Your task to perform on an android device: Go to network settings Image 0: 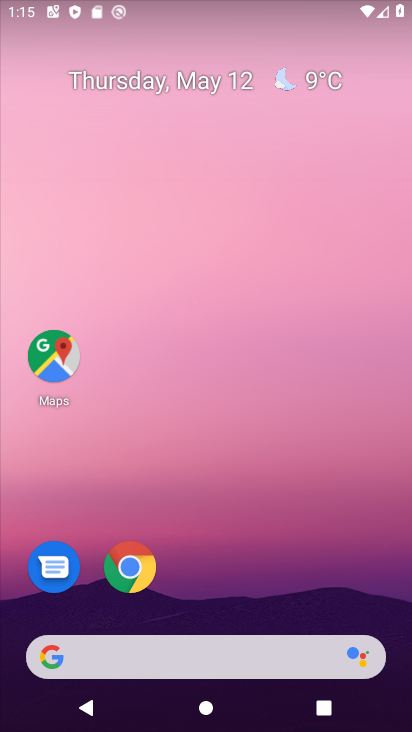
Step 0: drag from (221, 612) to (202, 97)
Your task to perform on an android device: Go to network settings Image 1: 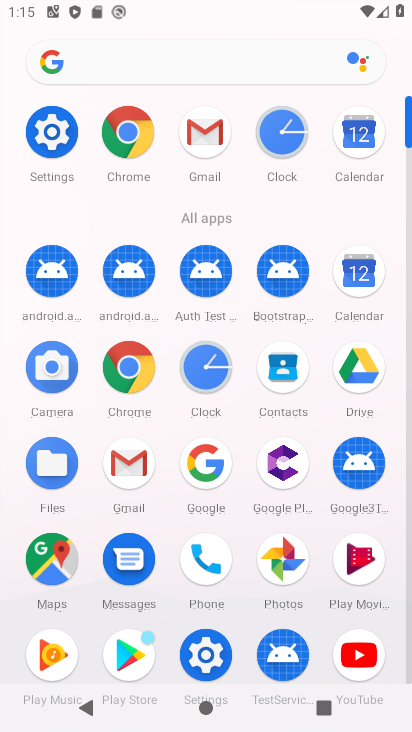
Step 1: click (49, 126)
Your task to perform on an android device: Go to network settings Image 2: 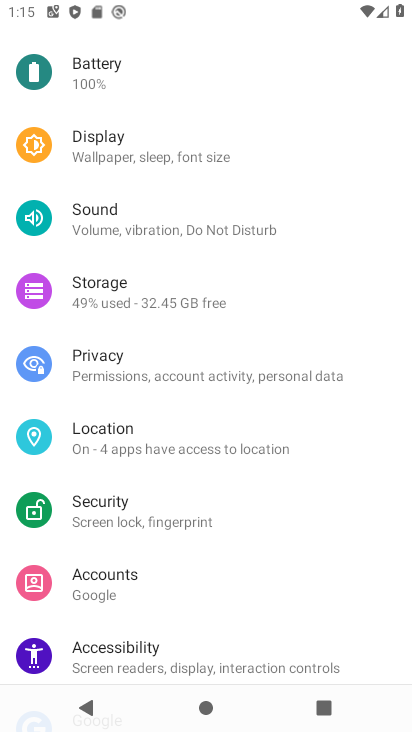
Step 2: drag from (122, 118) to (147, 660)
Your task to perform on an android device: Go to network settings Image 3: 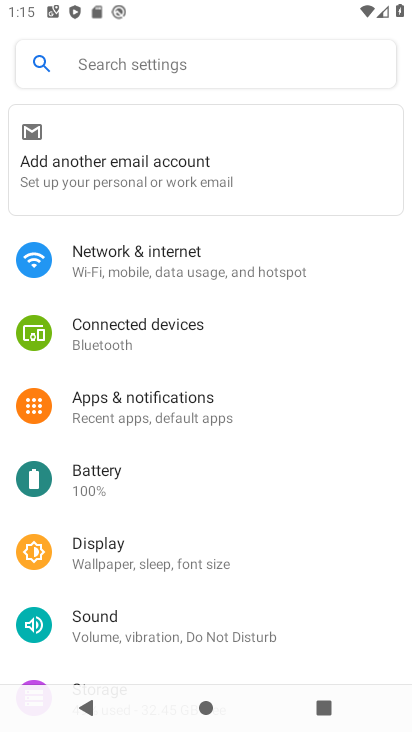
Step 3: click (129, 266)
Your task to perform on an android device: Go to network settings Image 4: 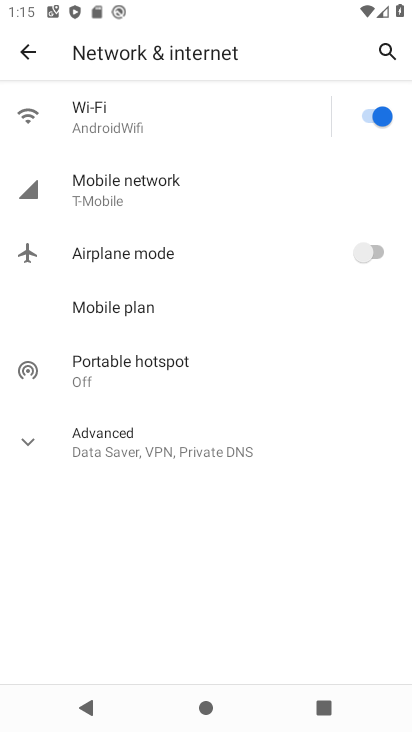
Step 4: click (27, 434)
Your task to perform on an android device: Go to network settings Image 5: 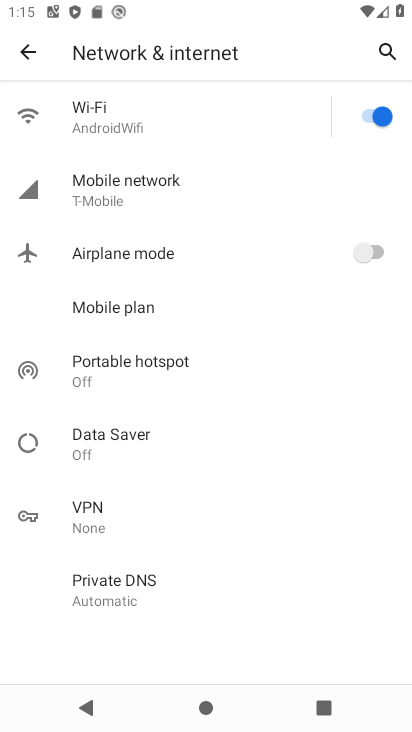
Step 5: task complete